Your task to perform on an android device: open the mobile data screen to see how much data has been used Image 0: 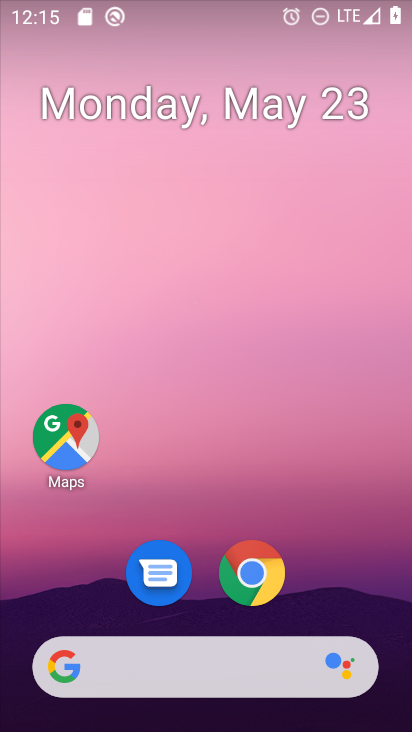
Step 0: drag from (316, 585) to (332, 77)
Your task to perform on an android device: open the mobile data screen to see how much data has been used Image 1: 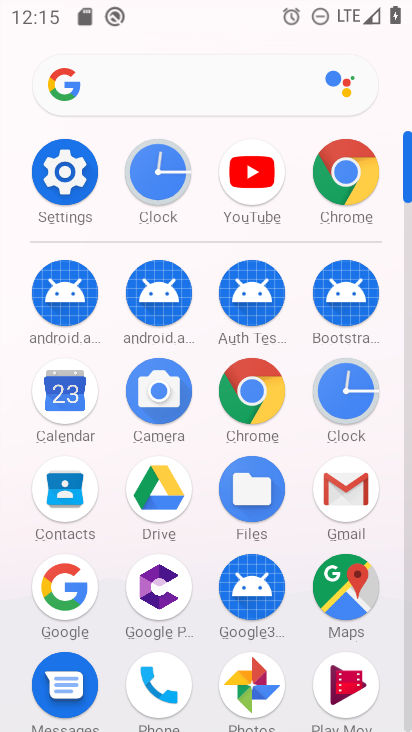
Step 1: click (65, 172)
Your task to perform on an android device: open the mobile data screen to see how much data has been used Image 2: 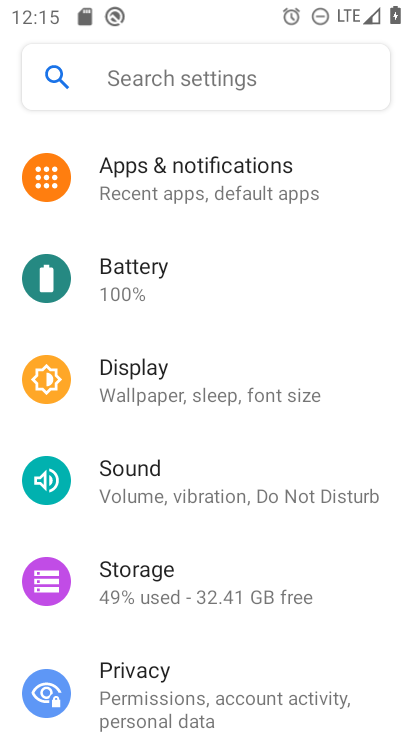
Step 2: drag from (244, 243) to (309, 529)
Your task to perform on an android device: open the mobile data screen to see how much data has been used Image 3: 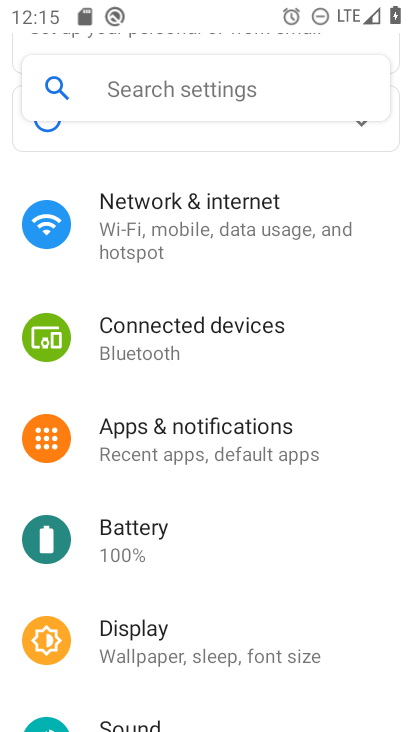
Step 3: click (222, 199)
Your task to perform on an android device: open the mobile data screen to see how much data has been used Image 4: 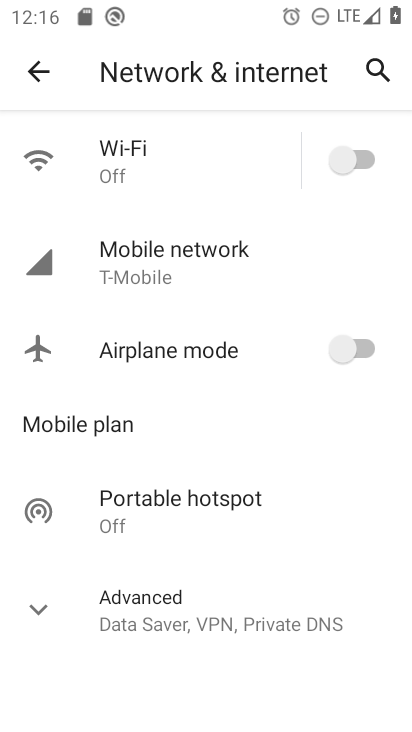
Step 4: click (202, 248)
Your task to perform on an android device: open the mobile data screen to see how much data has been used Image 5: 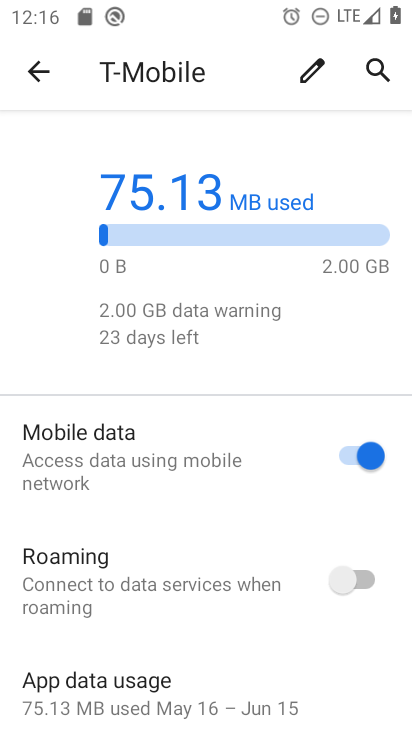
Step 5: click (167, 667)
Your task to perform on an android device: open the mobile data screen to see how much data has been used Image 6: 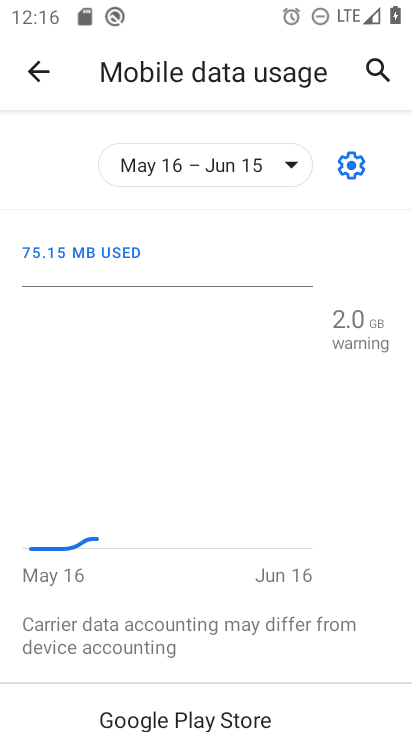
Step 6: task complete